Your task to perform on an android device: find which apps use the phone's location Image 0: 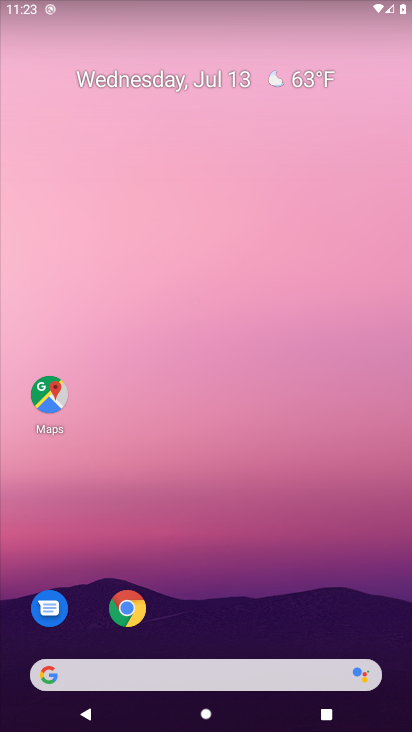
Step 0: press home button
Your task to perform on an android device: find which apps use the phone's location Image 1: 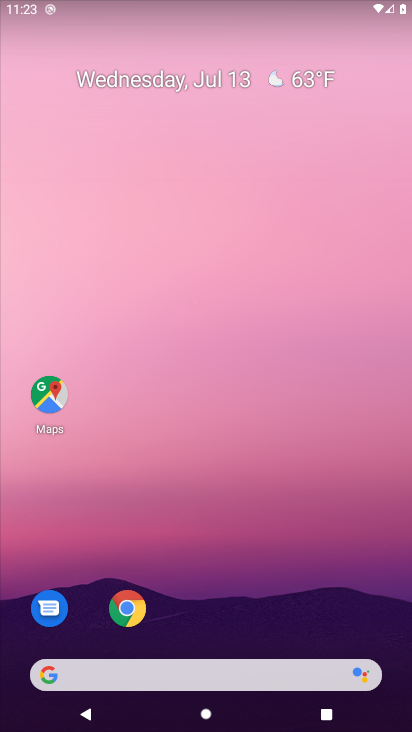
Step 1: press home button
Your task to perform on an android device: find which apps use the phone's location Image 2: 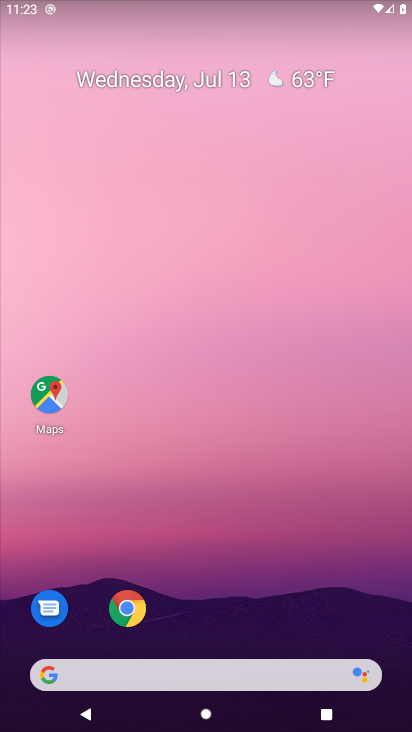
Step 2: drag from (237, 565) to (238, 81)
Your task to perform on an android device: find which apps use the phone's location Image 3: 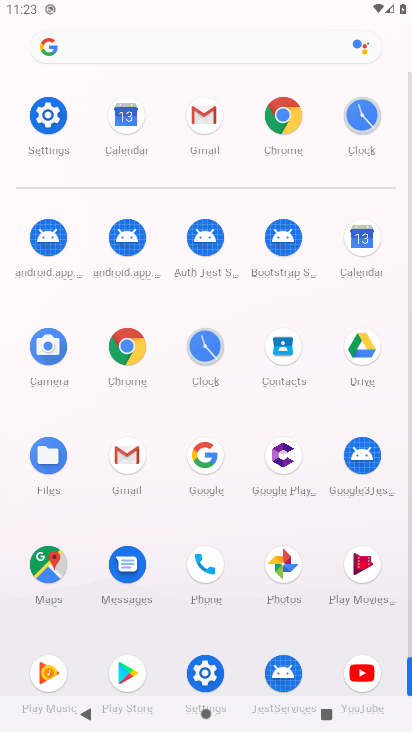
Step 3: click (54, 110)
Your task to perform on an android device: find which apps use the phone's location Image 4: 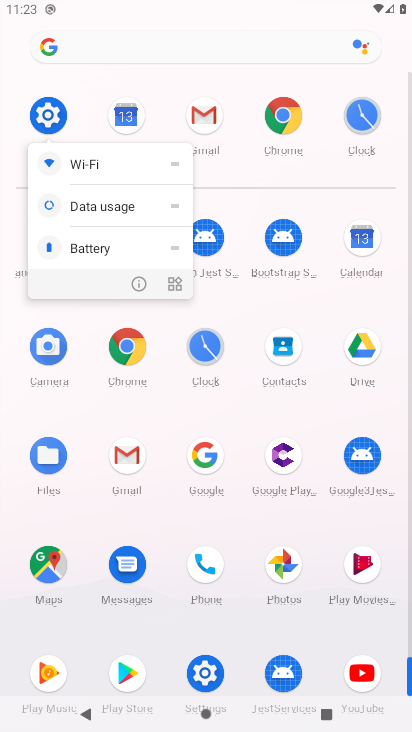
Step 4: click (54, 110)
Your task to perform on an android device: find which apps use the phone's location Image 5: 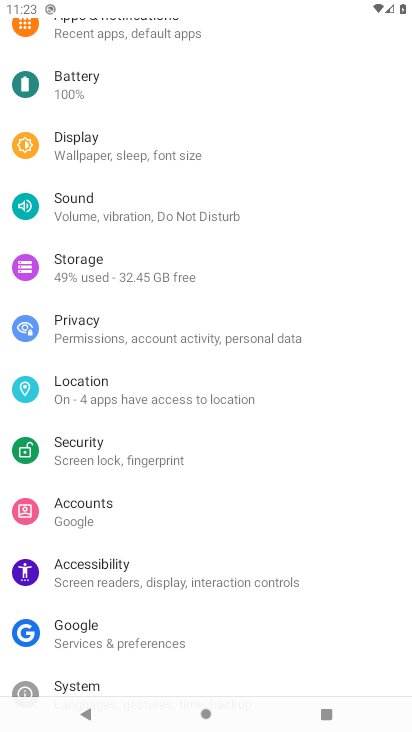
Step 5: click (110, 390)
Your task to perform on an android device: find which apps use the phone's location Image 6: 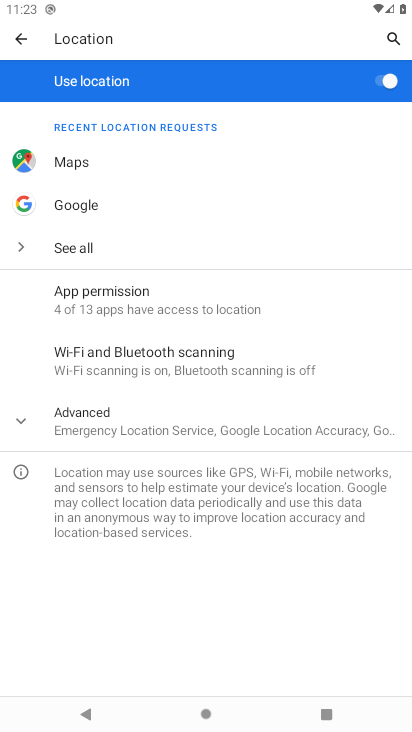
Step 6: click (97, 298)
Your task to perform on an android device: find which apps use the phone's location Image 7: 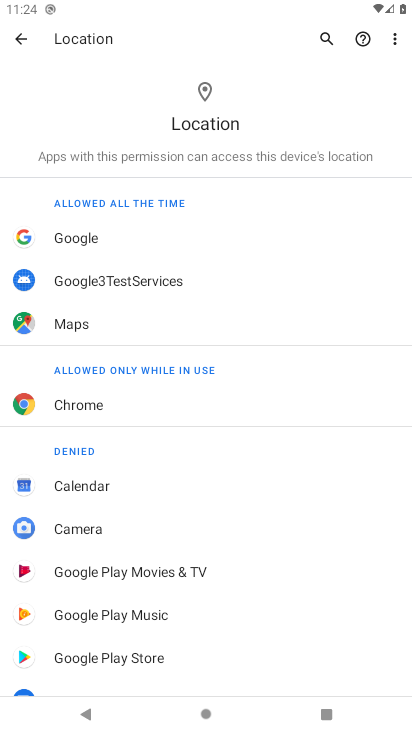
Step 7: task complete